Your task to perform on an android device: all mails in gmail Image 0: 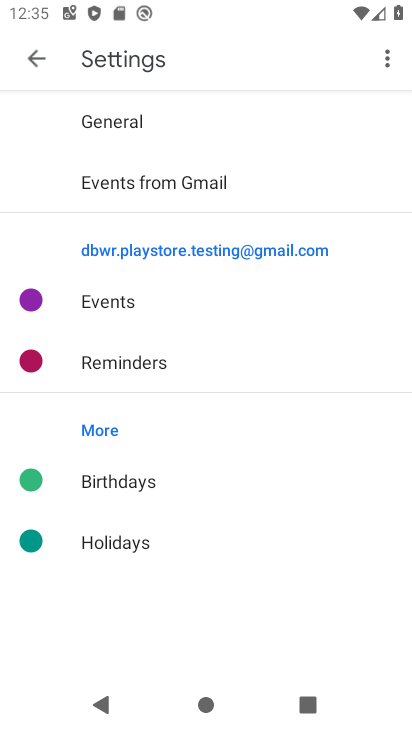
Step 0: press home button
Your task to perform on an android device: all mails in gmail Image 1: 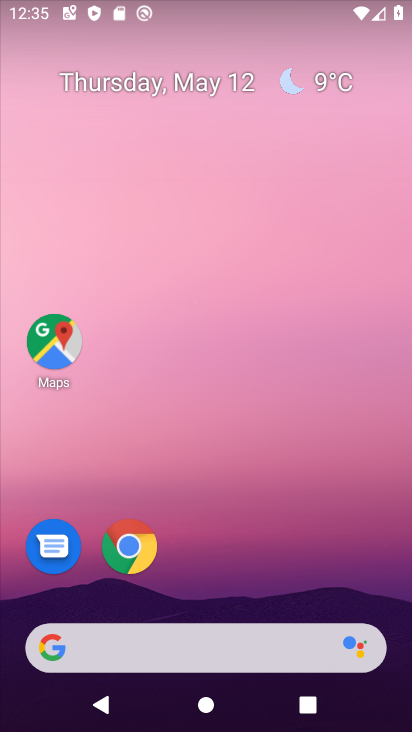
Step 1: drag from (237, 545) to (277, 177)
Your task to perform on an android device: all mails in gmail Image 2: 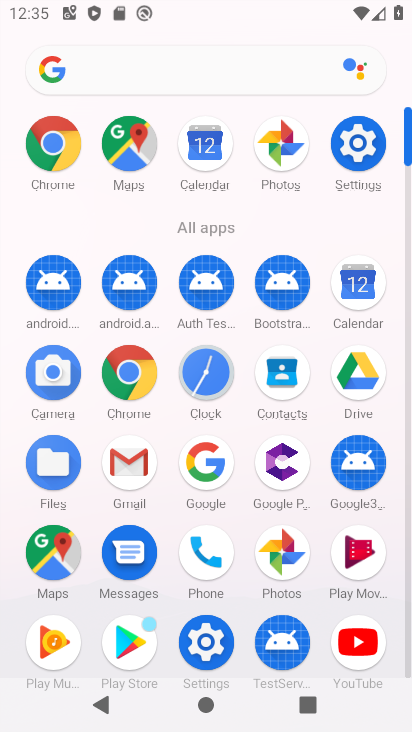
Step 2: click (136, 482)
Your task to perform on an android device: all mails in gmail Image 3: 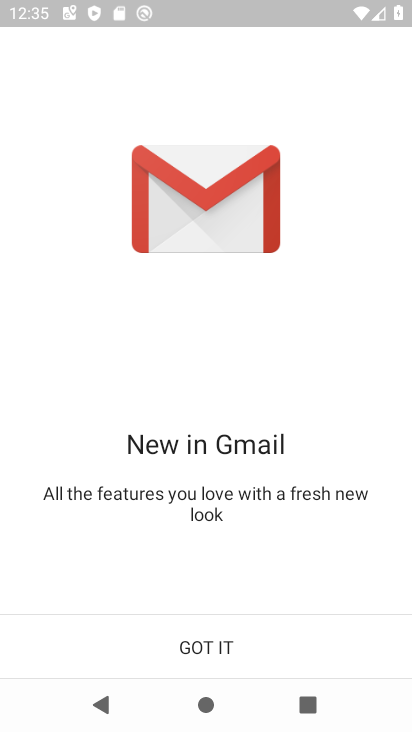
Step 3: click (229, 656)
Your task to perform on an android device: all mails in gmail Image 4: 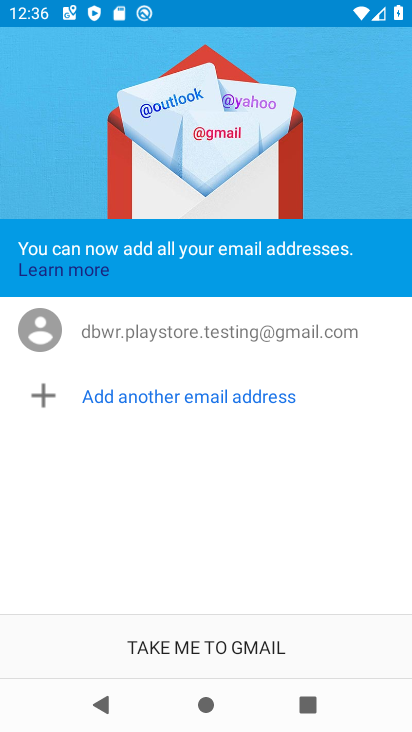
Step 4: click (186, 638)
Your task to perform on an android device: all mails in gmail Image 5: 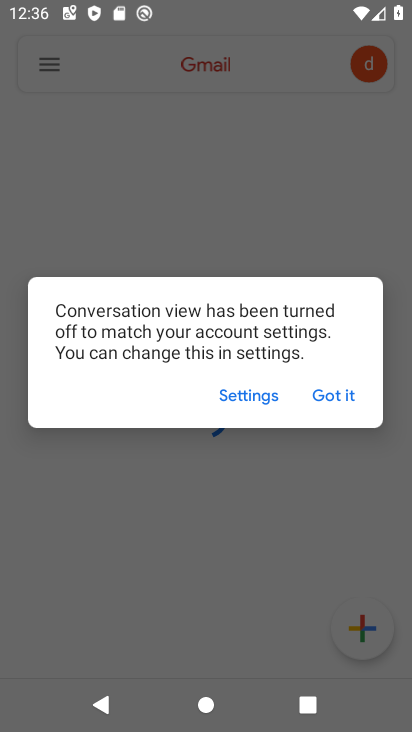
Step 5: click (337, 391)
Your task to perform on an android device: all mails in gmail Image 6: 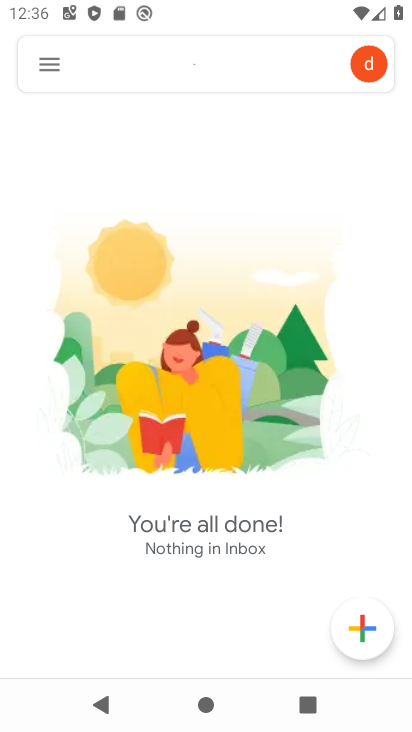
Step 6: click (39, 76)
Your task to perform on an android device: all mails in gmail Image 7: 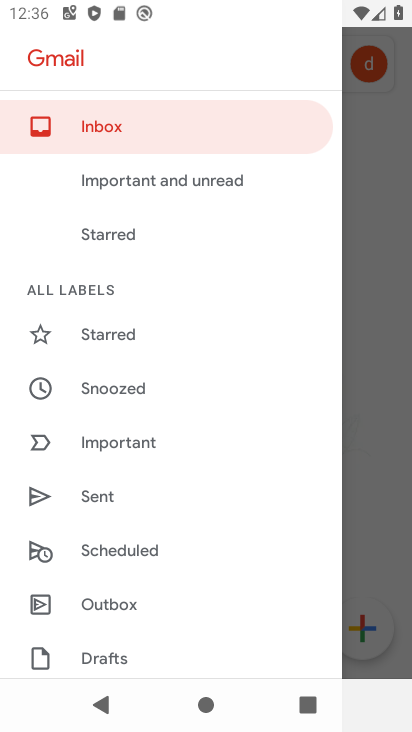
Step 7: drag from (165, 638) to (186, 242)
Your task to perform on an android device: all mails in gmail Image 8: 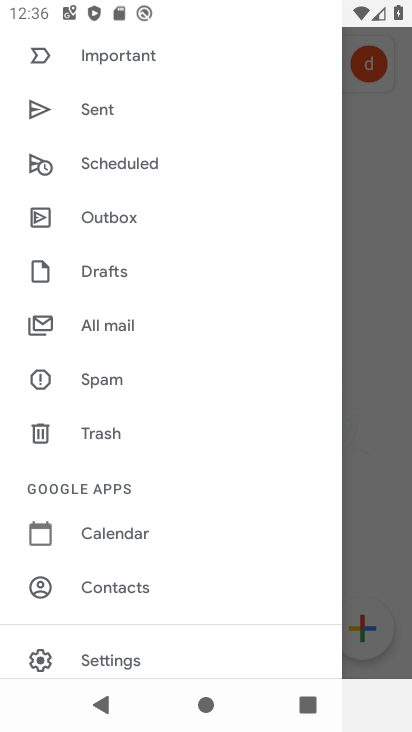
Step 8: click (130, 335)
Your task to perform on an android device: all mails in gmail Image 9: 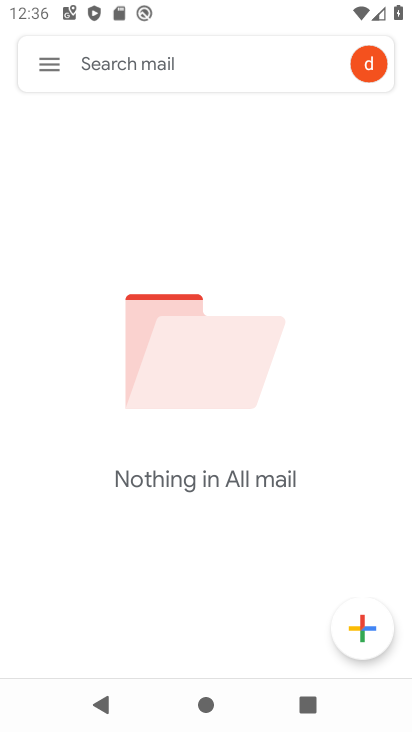
Step 9: task complete